Your task to perform on an android device: Check the news Image 0: 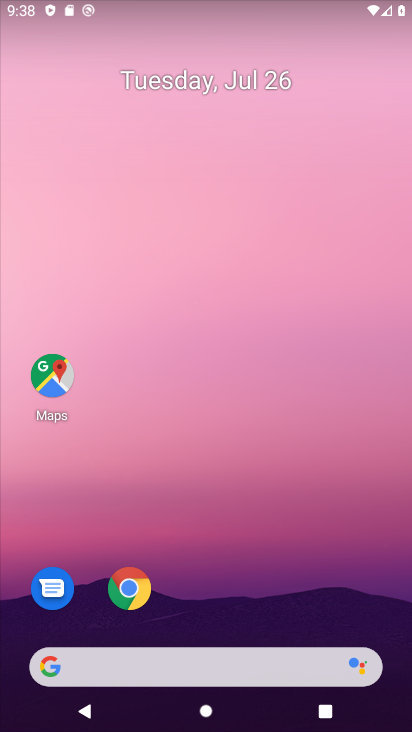
Step 0: click (171, 674)
Your task to perform on an android device: Check the news Image 1: 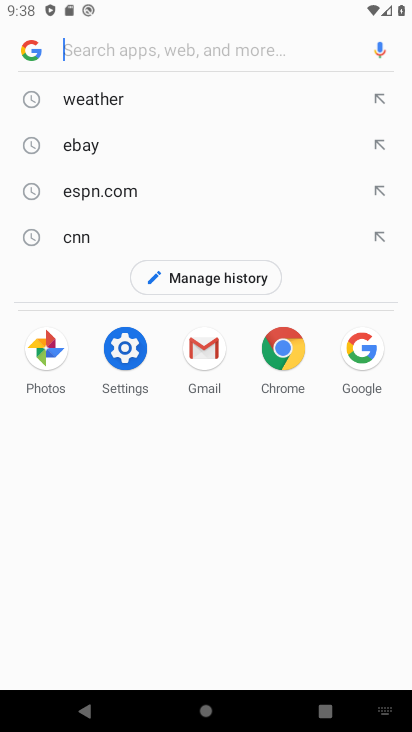
Step 1: click (129, 47)
Your task to perform on an android device: Check the news Image 2: 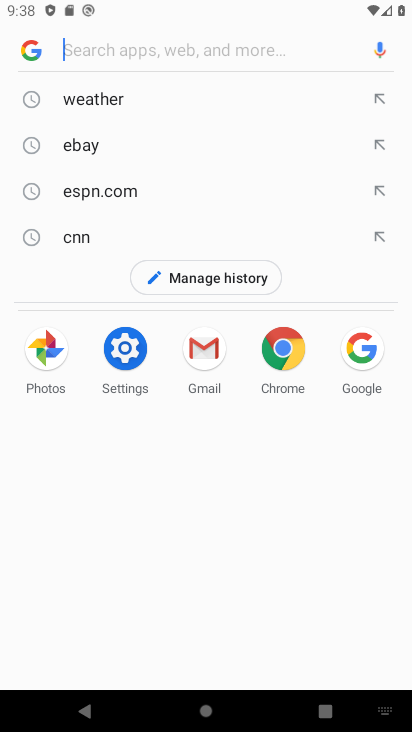
Step 2: type "news"
Your task to perform on an android device: Check the news Image 3: 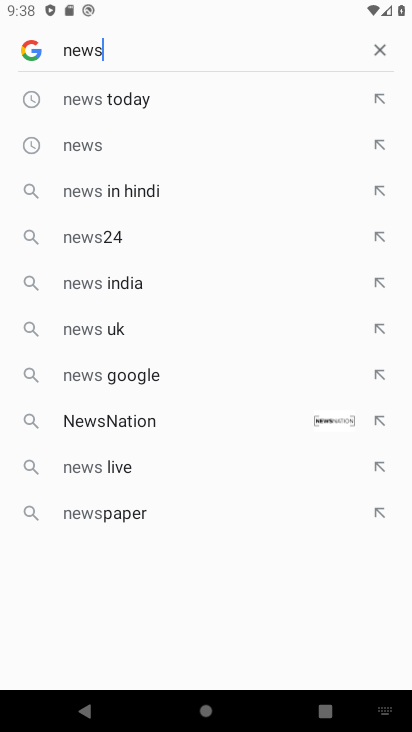
Step 3: click (94, 144)
Your task to perform on an android device: Check the news Image 4: 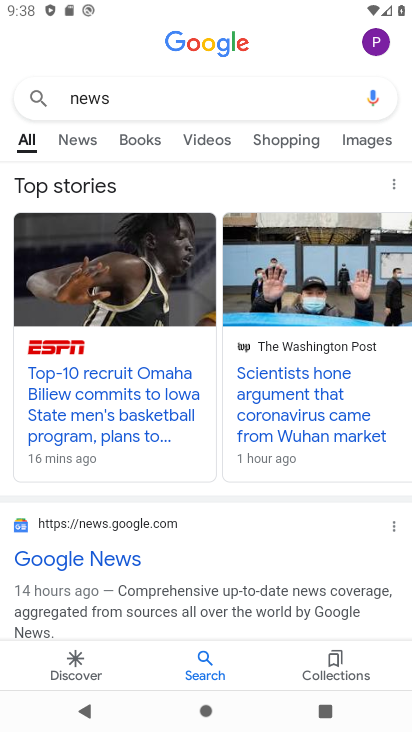
Step 4: task complete